Your task to perform on an android device: empty trash in the gmail app Image 0: 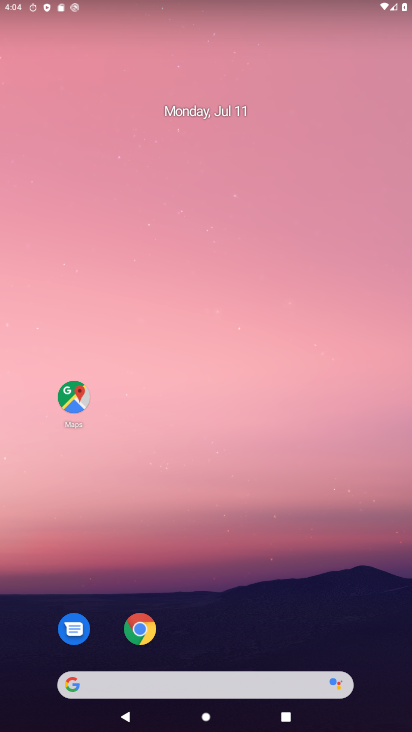
Step 0: drag from (197, 630) to (264, 0)
Your task to perform on an android device: empty trash in the gmail app Image 1: 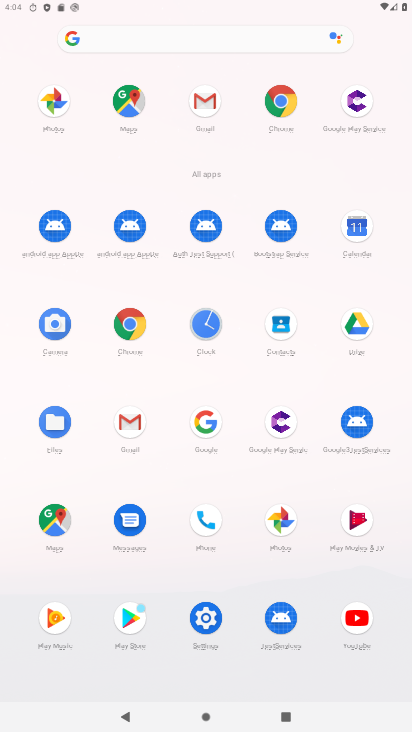
Step 1: click (206, 92)
Your task to perform on an android device: empty trash in the gmail app Image 2: 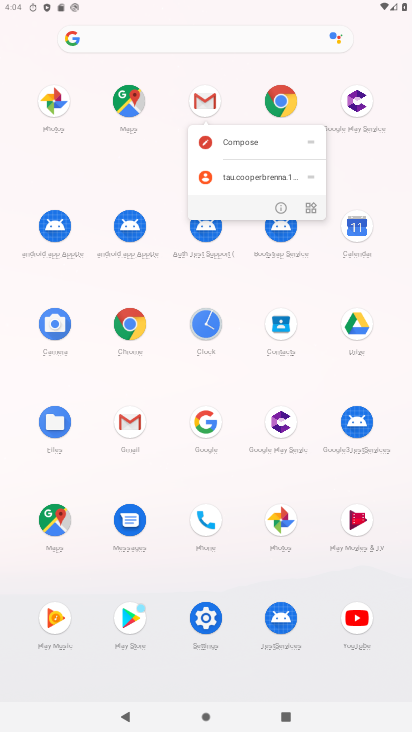
Step 2: click (282, 205)
Your task to perform on an android device: empty trash in the gmail app Image 3: 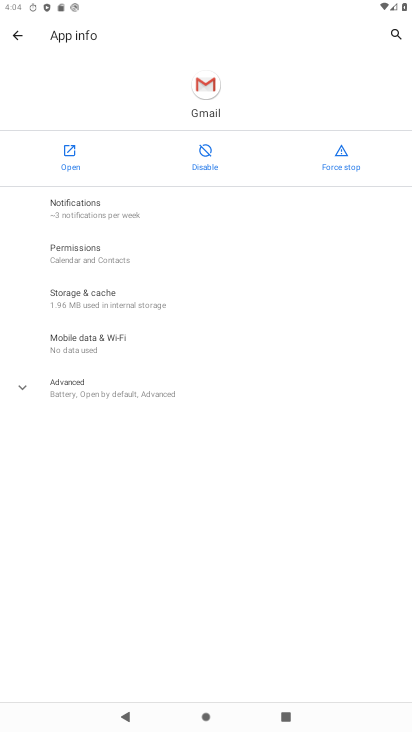
Step 3: click (64, 157)
Your task to perform on an android device: empty trash in the gmail app Image 4: 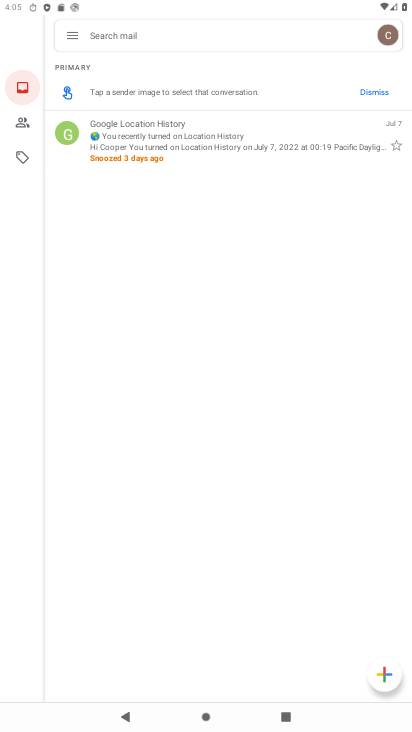
Step 4: click (282, 279)
Your task to perform on an android device: empty trash in the gmail app Image 5: 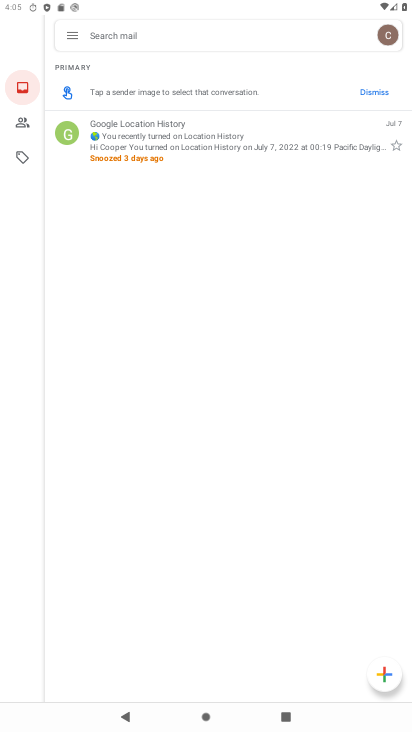
Step 5: click (271, 289)
Your task to perform on an android device: empty trash in the gmail app Image 6: 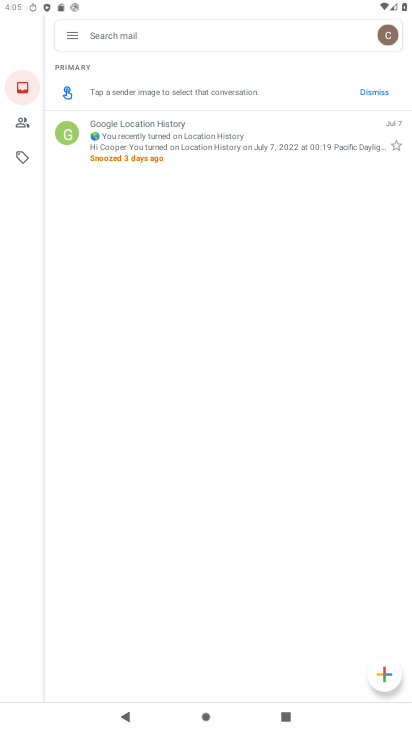
Step 6: drag from (222, 469) to (239, 385)
Your task to perform on an android device: empty trash in the gmail app Image 7: 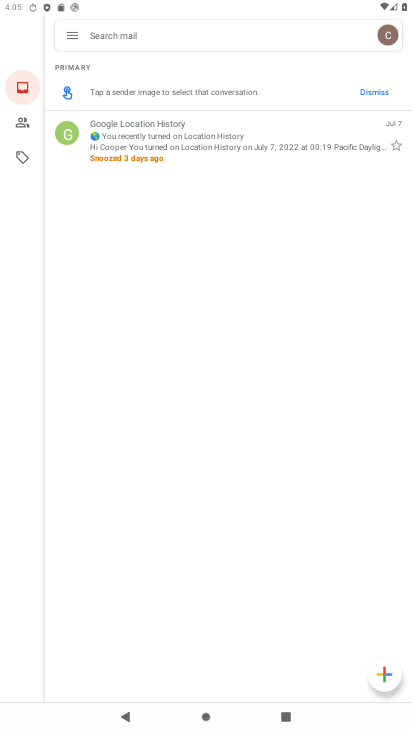
Step 7: click (67, 37)
Your task to perform on an android device: empty trash in the gmail app Image 8: 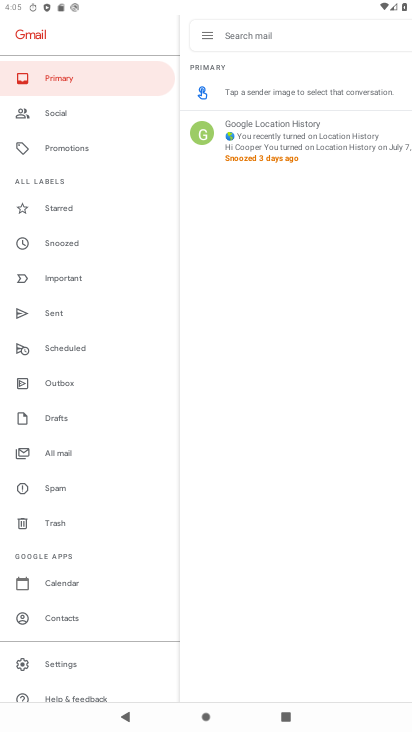
Step 8: click (19, 520)
Your task to perform on an android device: empty trash in the gmail app Image 9: 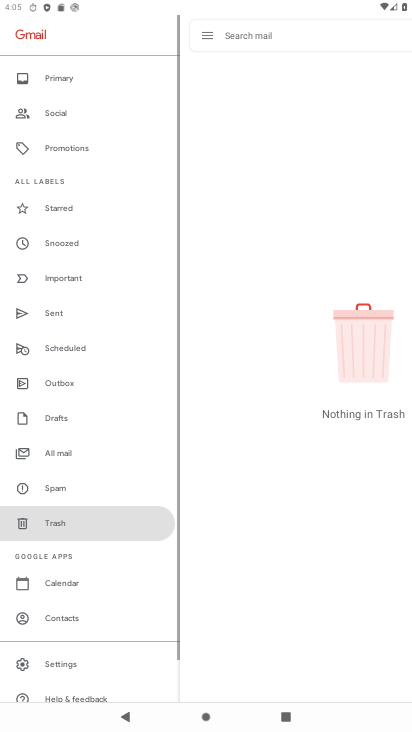
Step 9: drag from (243, 548) to (243, 117)
Your task to perform on an android device: empty trash in the gmail app Image 10: 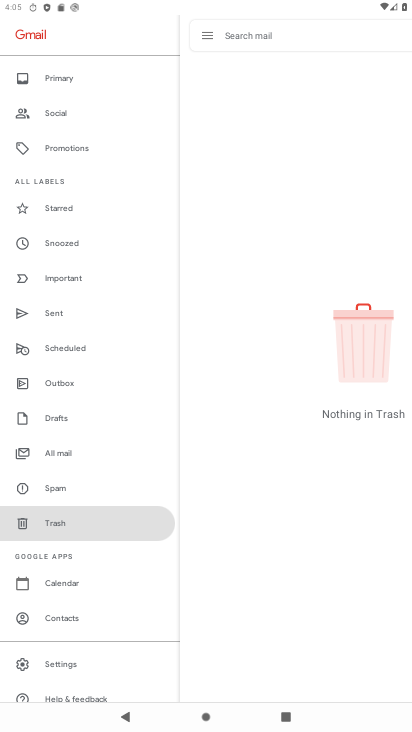
Step 10: click (208, 34)
Your task to perform on an android device: empty trash in the gmail app Image 11: 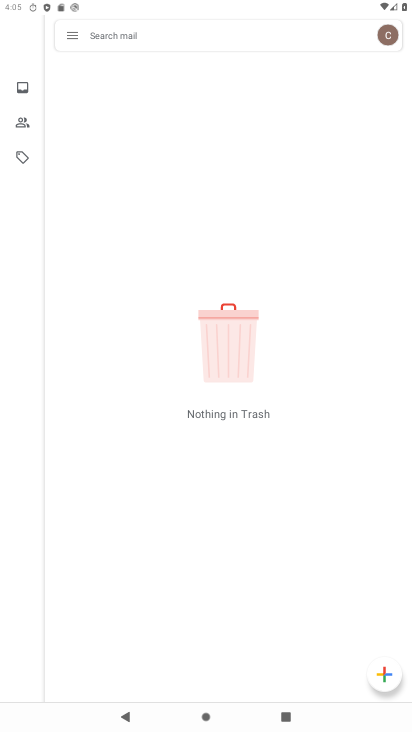
Step 11: task complete